Your task to perform on an android device: Open display settings Image 0: 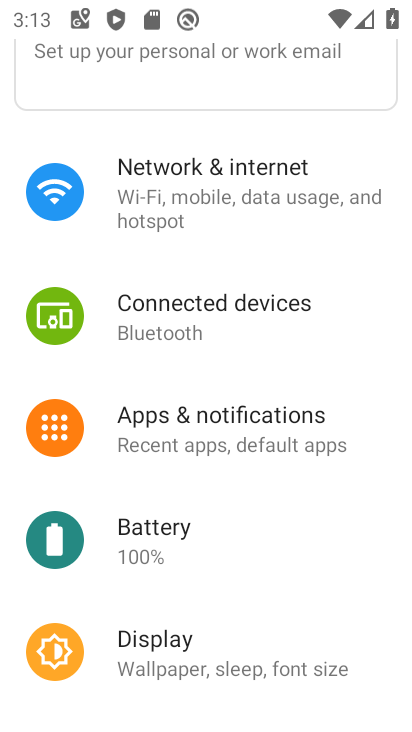
Step 0: drag from (215, 285) to (253, 311)
Your task to perform on an android device: Open display settings Image 1: 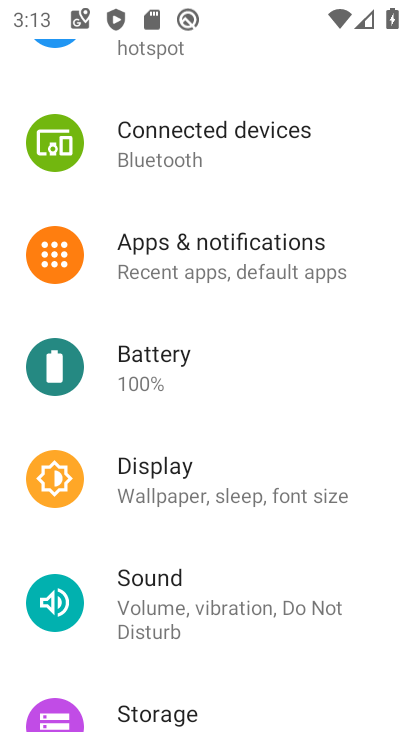
Step 1: click (176, 512)
Your task to perform on an android device: Open display settings Image 2: 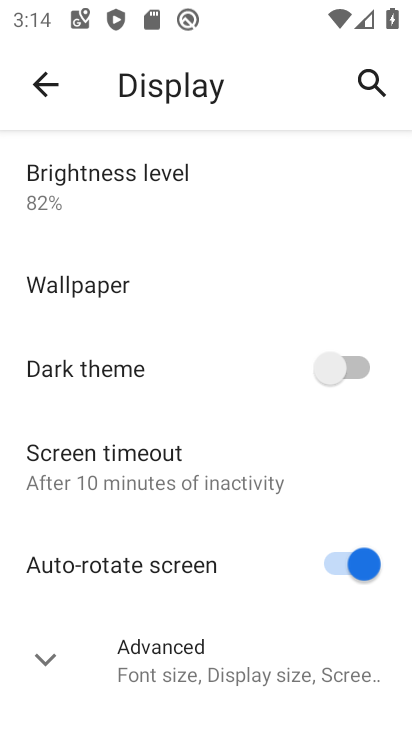
Step 2: task complete